Your task to perform on an android device: When is my next meeting? Image 0: 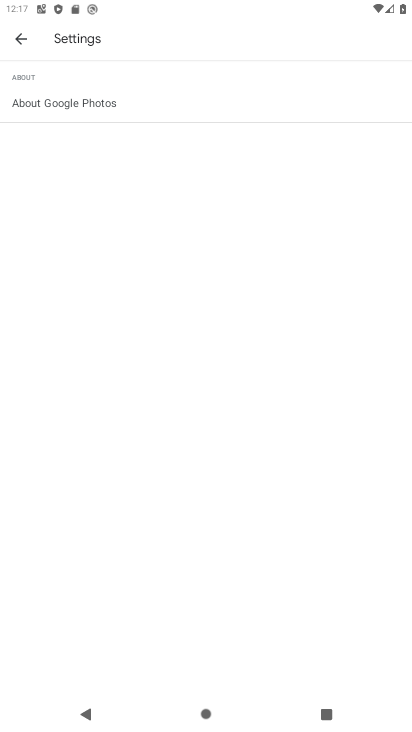
Step 0: press home button
Your task to perform on an android device: When is my next meeting? Image 1: 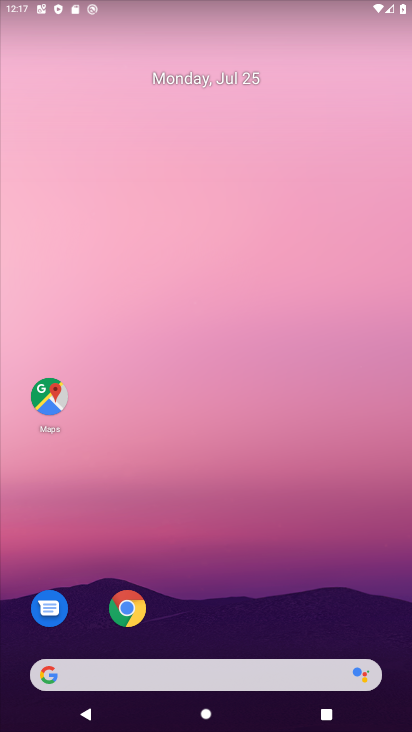
Step 1: drag from (275, 640) to (209, 0)
Your task to perform on an android device: When is my next meeting? Image 2: 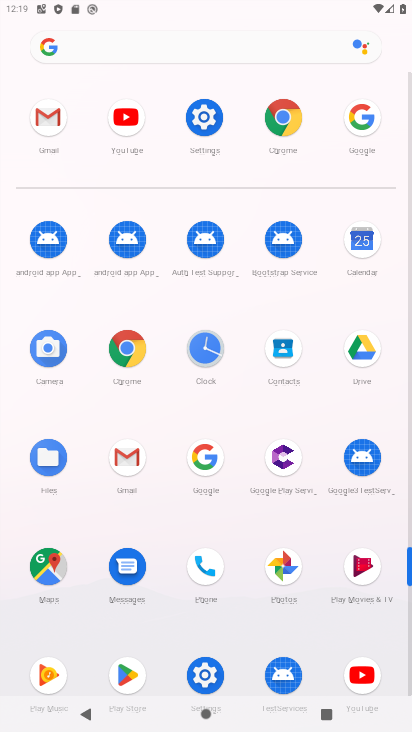
Step 2: click (375, 235)
Your task to perform on an android device: When is my next meeting? Image 3: 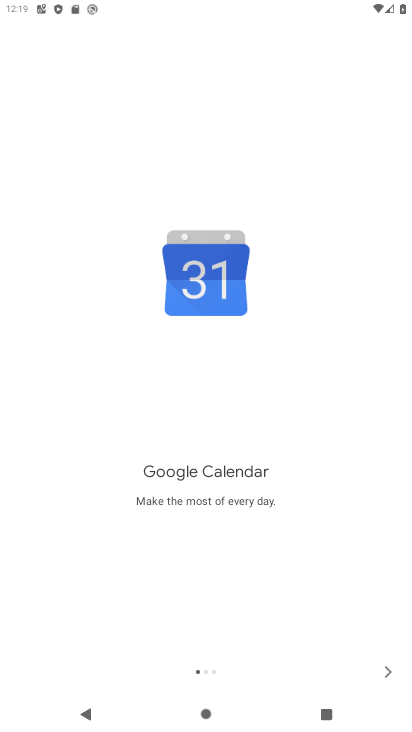
Step 3: click (379, 659)
Your task to perform on an android device: When is my next meeting? Image 4: 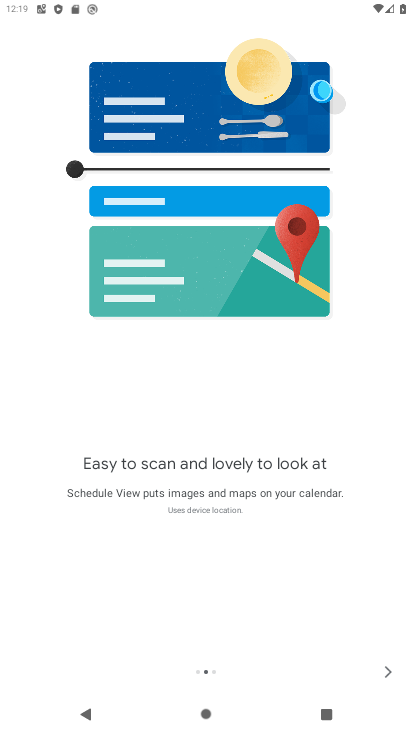
Step 4: click (379, 659)
Your task to perform on an android device: When is my next meeting? Image 5: 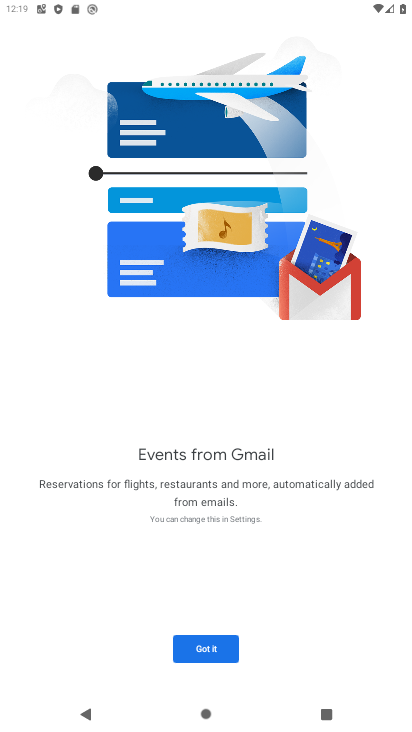
Step 5: click (206, 644)
Your task to perform on an android device: When is my next meeting? Image 6: 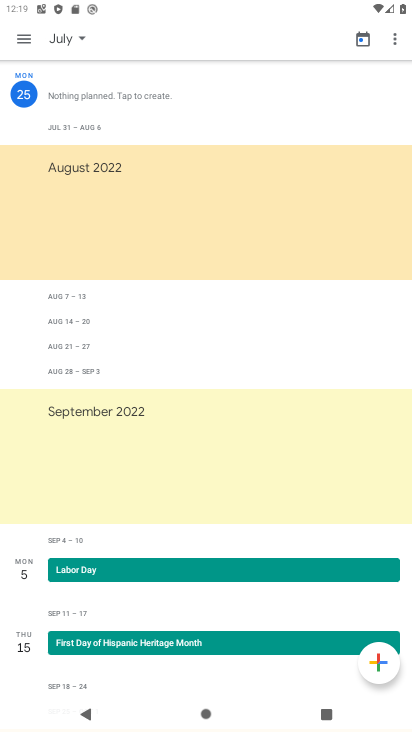
Step 6: click (237, 573)
Your task to perform on an android device: When is my next meeting? Image 7: 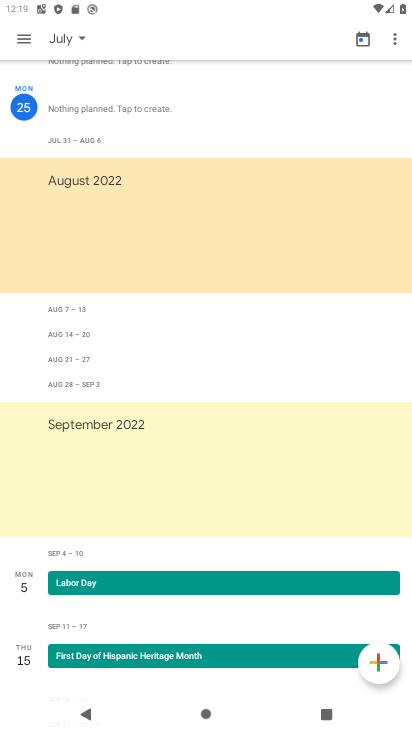
Step 7: drag from (187, 457) to (178, 219)
Your task to perform on an android device: When is my next meeting? Image 8: 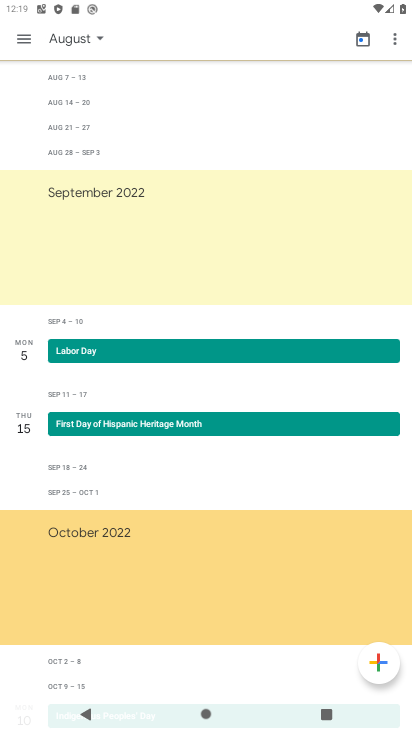
Step 8: drag from (166, 524) to (166, 233)
Your task to perform on an android device: When is my next meeting? Image 9: 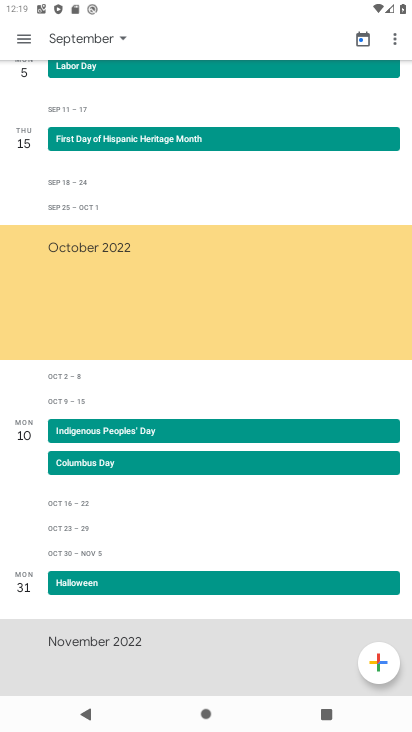
Step 9: drag from (186, 536) to (187, 189)
Your task to perform on an android device: When is my next meeting? Image 10: 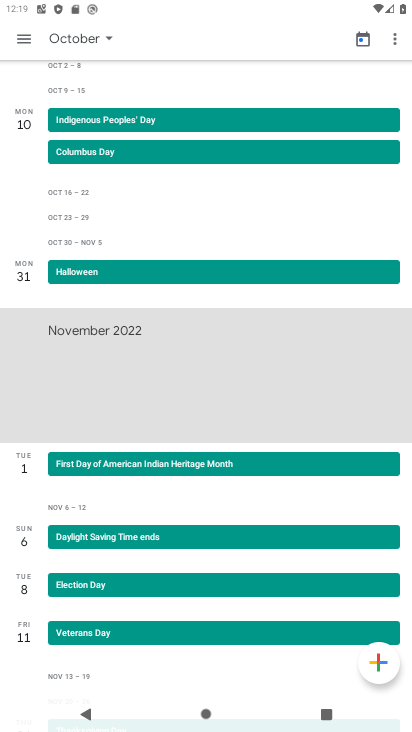
Step 10: drag from (193, 467) to (188, 196)
Your task to perform on an android device: When is my next meeting? Image 11: 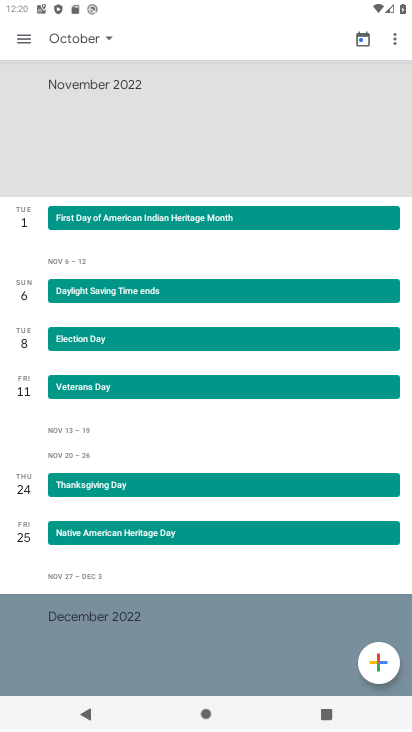
Step 11: drag from (179, 468) to (186, 221)
Your task to perform on an android device: When is my next meeting? Image 12: 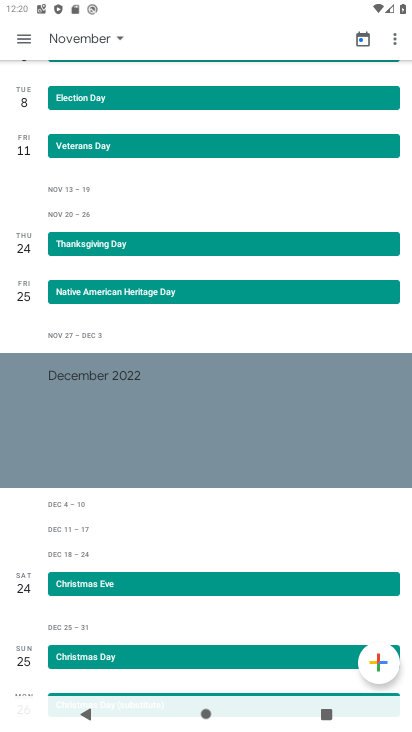
Step 12: drag from (173, 564) to (175, 263)
Your task to perform on an android device: When is my next meeting? Image 13: 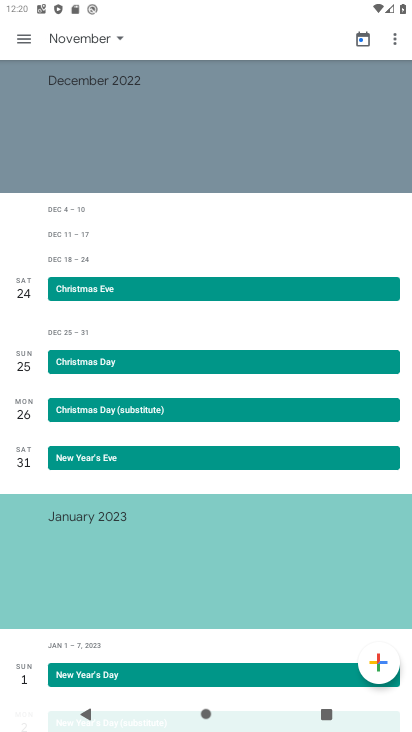
Step 13: drag from (176, 248) to (172, 691)
Your task to perform on an android device: When is my next meeting? Image 14: 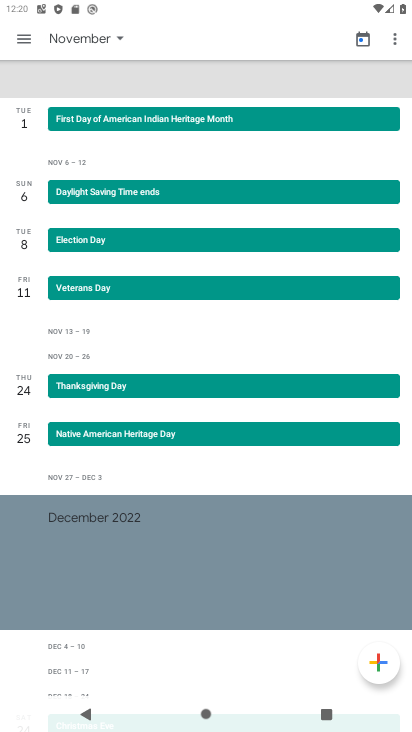
Step 14: click (26, 39)
Your task to perform on an android device: When is my next meeting? Image 15: 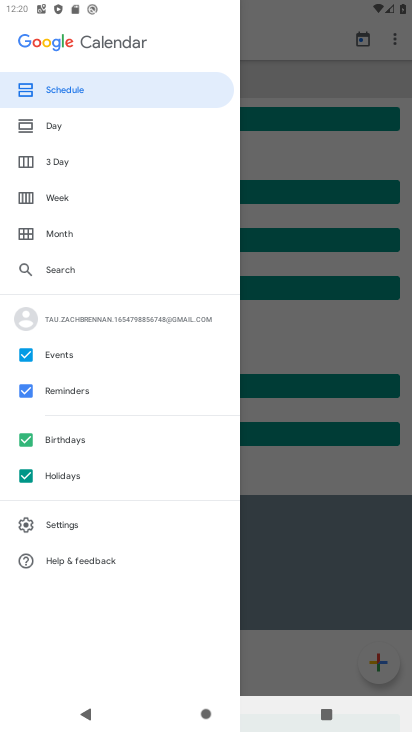
Step 15: click (25, 439)
Your task to perform on an android device: When is my next meeting? Image 16: 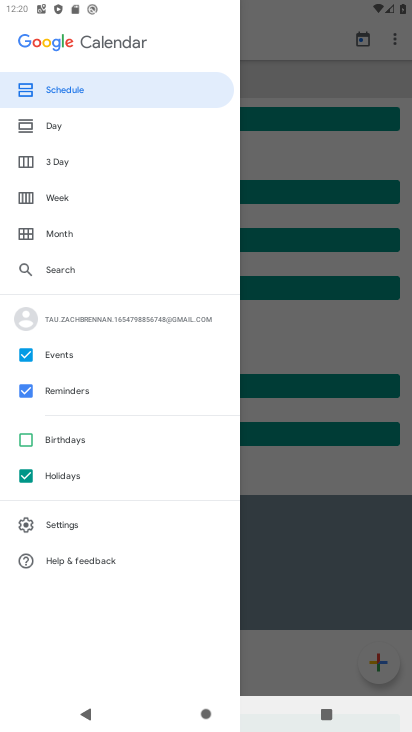
Step 16: click (24, 479)
Your task to perform on an android device: When is my next meeting? Image 17: 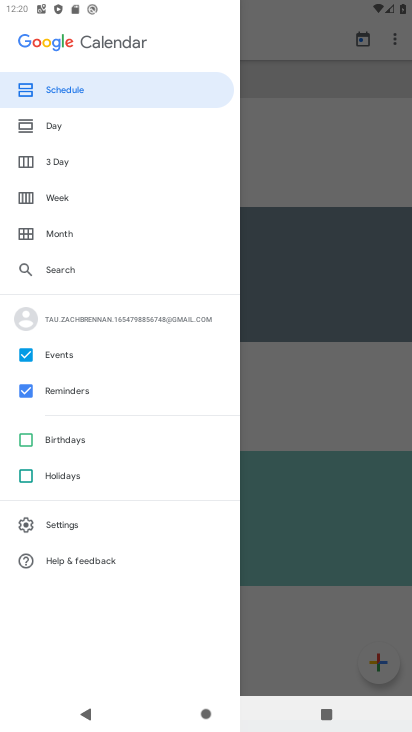
Step 17: click (19, 391)
Your task to perform on an android device: When is my next meeting? Image 18: 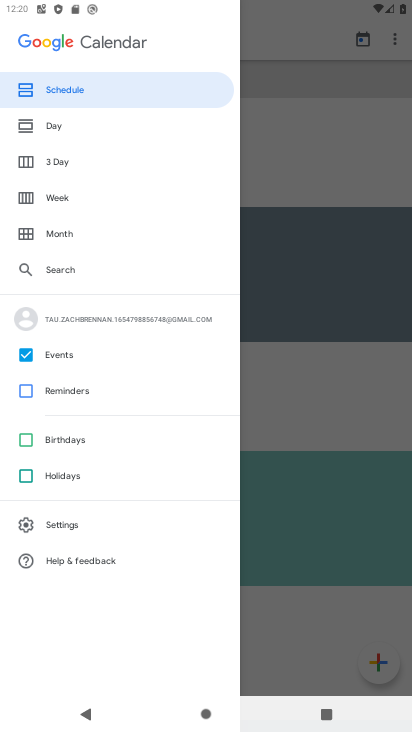
Step 18: click (55, 91)
Your task to perform on an android device: When is my next meeting? Image 19: 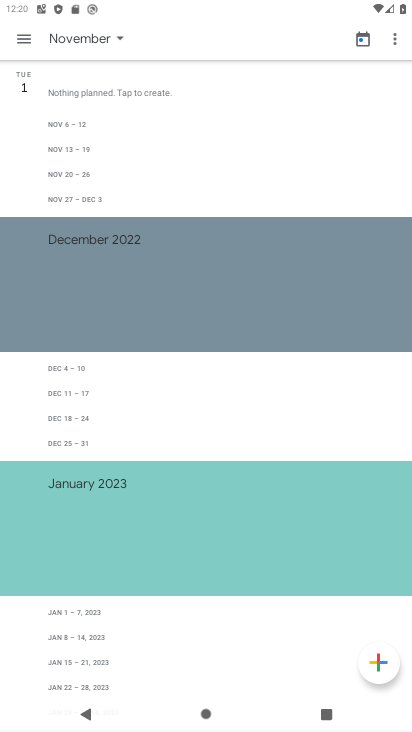
Step 19: task complete